Your task to perform on an android device: turn on notifications settings in the gmail app Image 0: 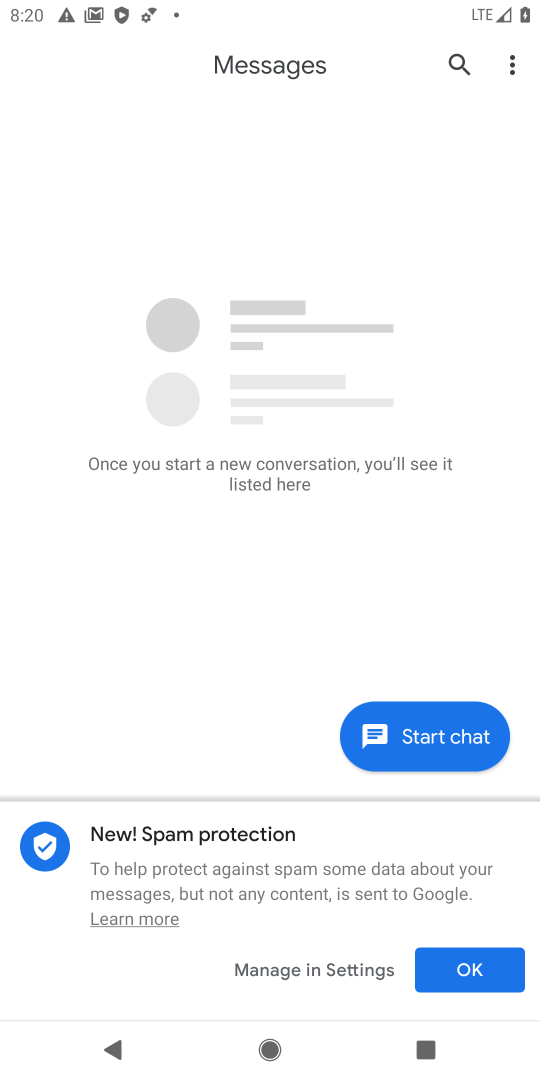
Step 0: press home button
Your task to perform on an android device: turn on notifications settings in the gmail app Image 1: 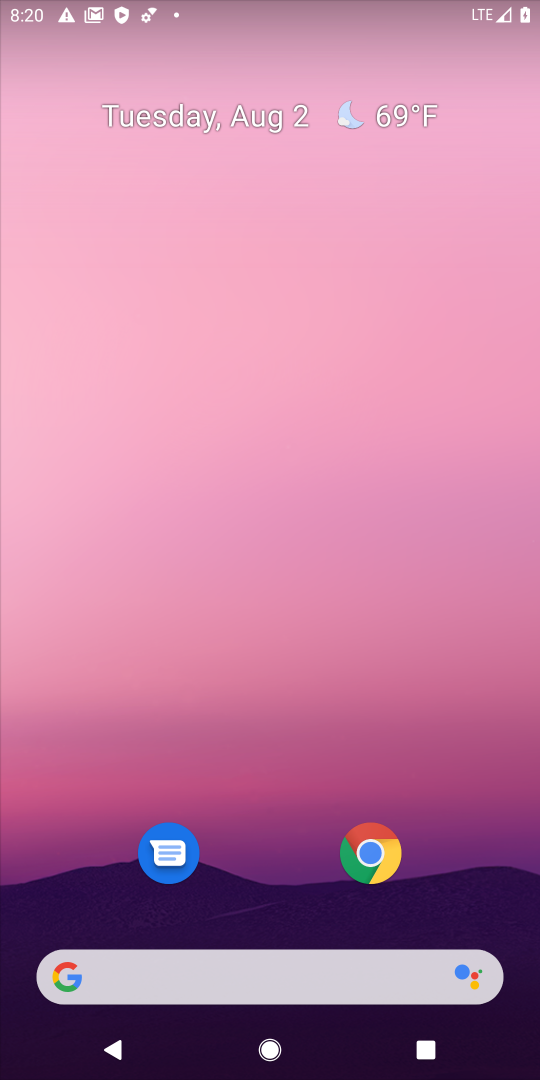
Step 1: drag from (285, 899) to (244, 74)
Your task to perform on an android device: turn on notifications settings in the gmail app Image 2: 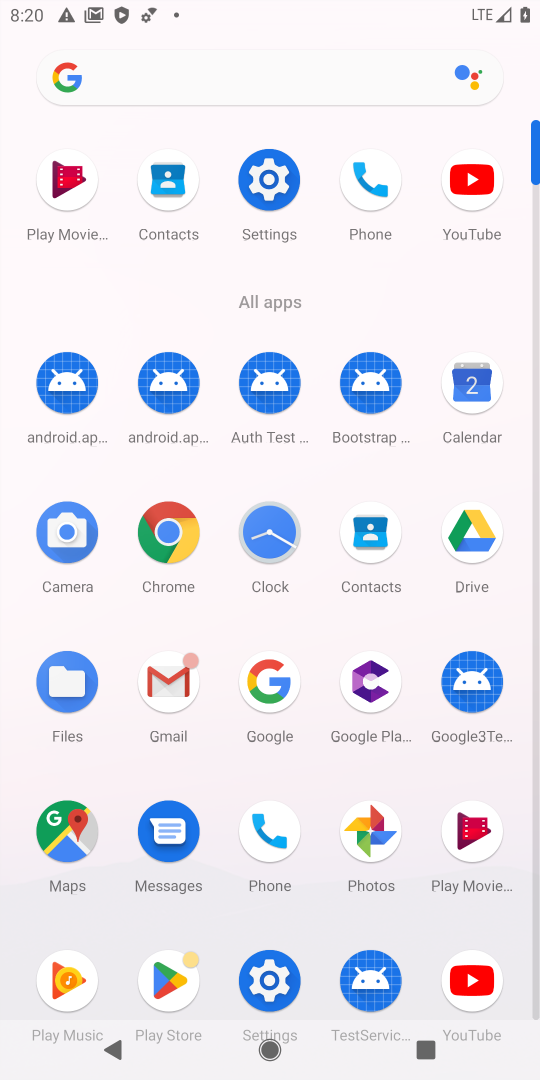
Step 2: click (178, 678)
Your task to perform on an android device: turn on notifications settings in the gmail app Image 3: 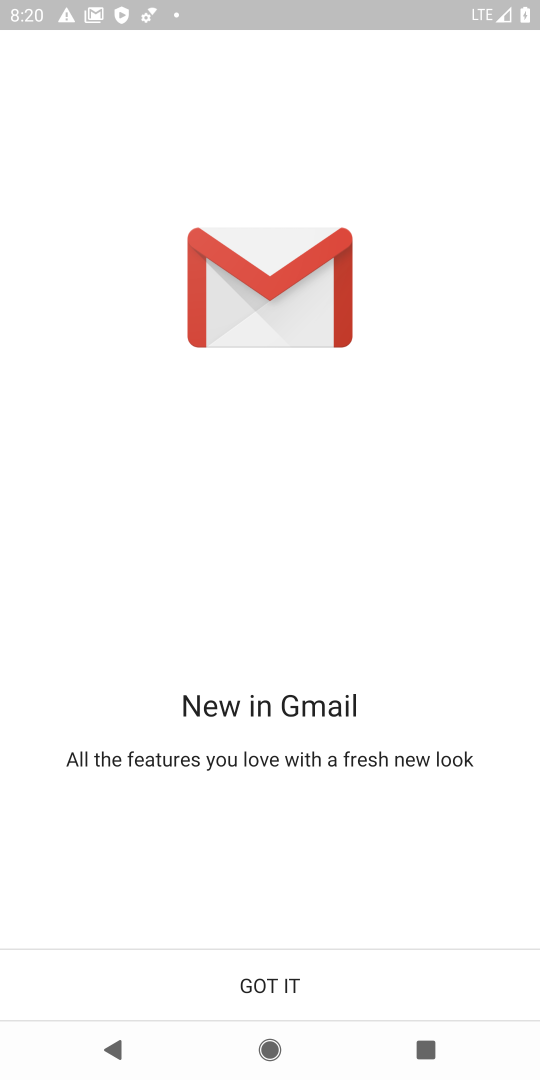
Step 3: click (248, 970)
Your task to perform on an android device: turn on notifications settings in the gmail app Image 4: 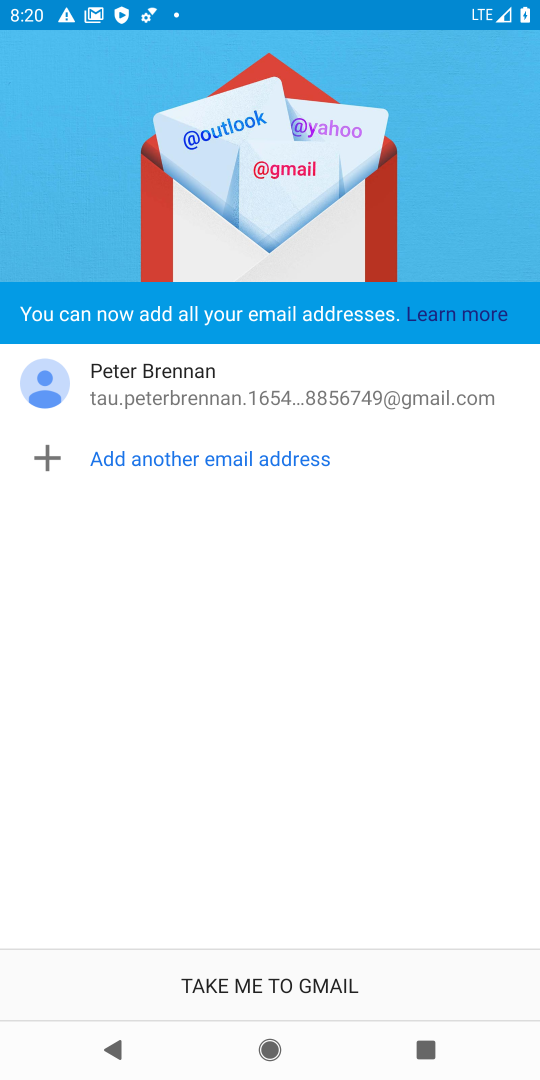
Step 4: click (248, 970)
Your task to perform on an android device: turn on notifications settings in the gmail app Image 5: 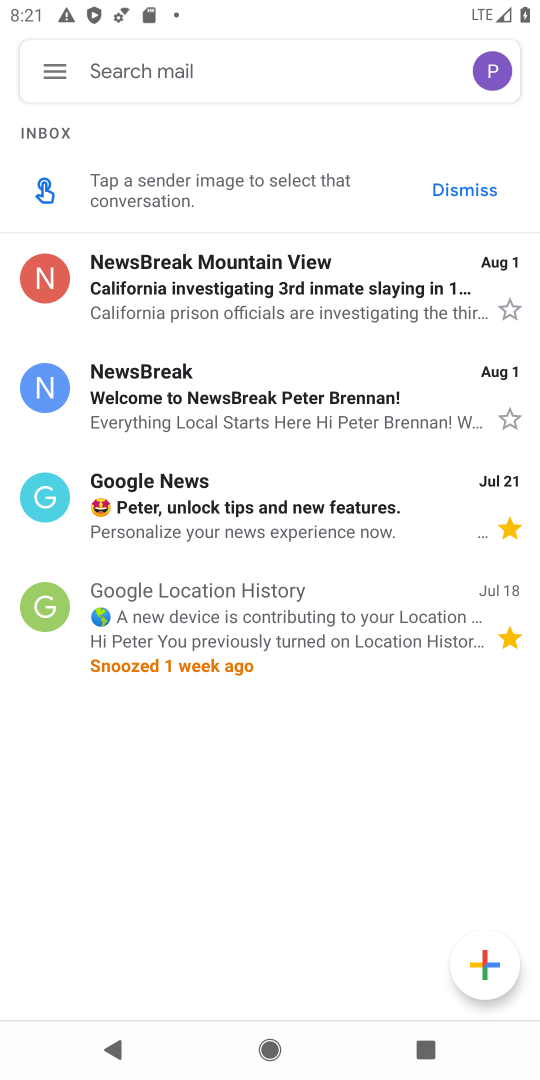
Step 5: click (53, 76)
Your task to perform on an android device: turn on notifications settings in the gmail app Image 6: 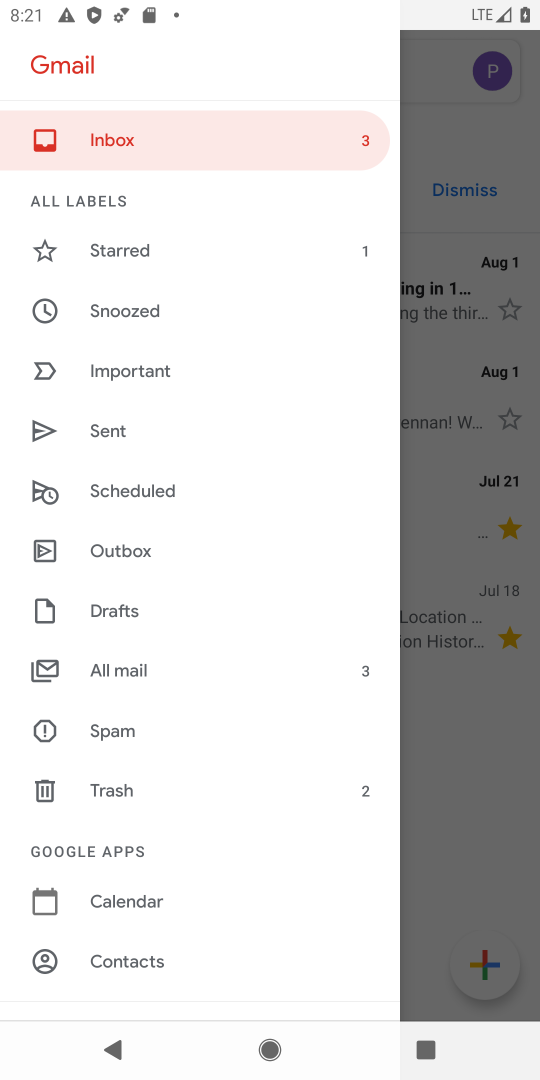
Step 6: drag from (151, 903) to (150, 379)
Your task to perform on an android device: turn on notifications settings in the gmail app Image 7: 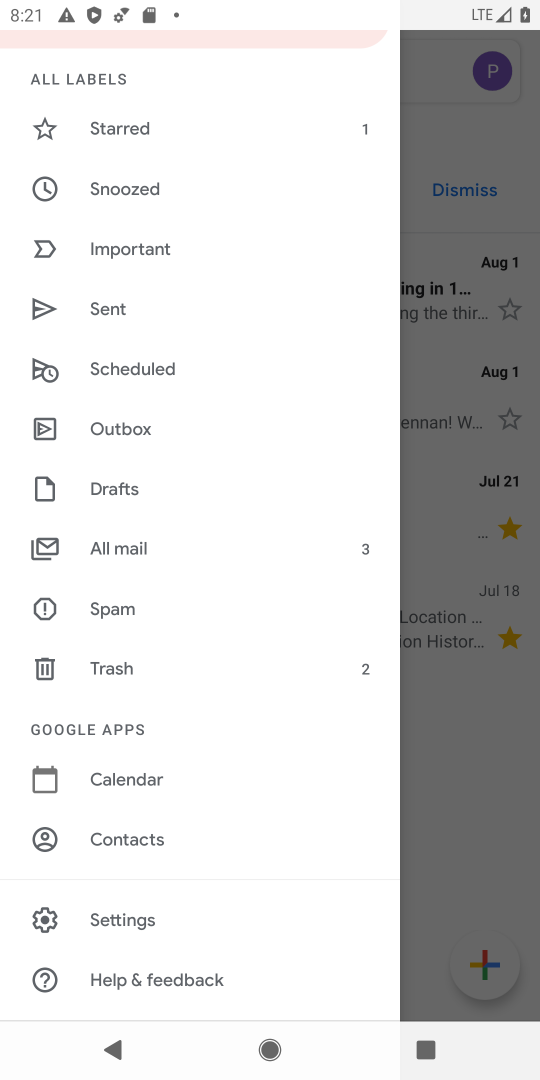
Step 7: click (131, 918)
Your task to perform on an android device: turn on notifications settings in the gmail app Image 8: 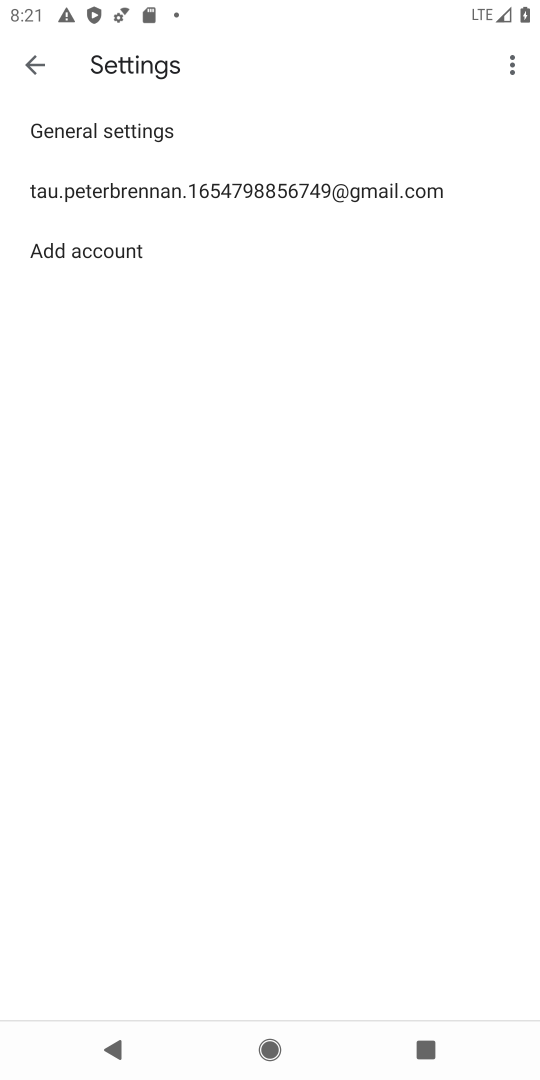
Step 8: click (144, 115)
Your task to perform on an android device: turn on notifications settings in the gmail app Image 9: 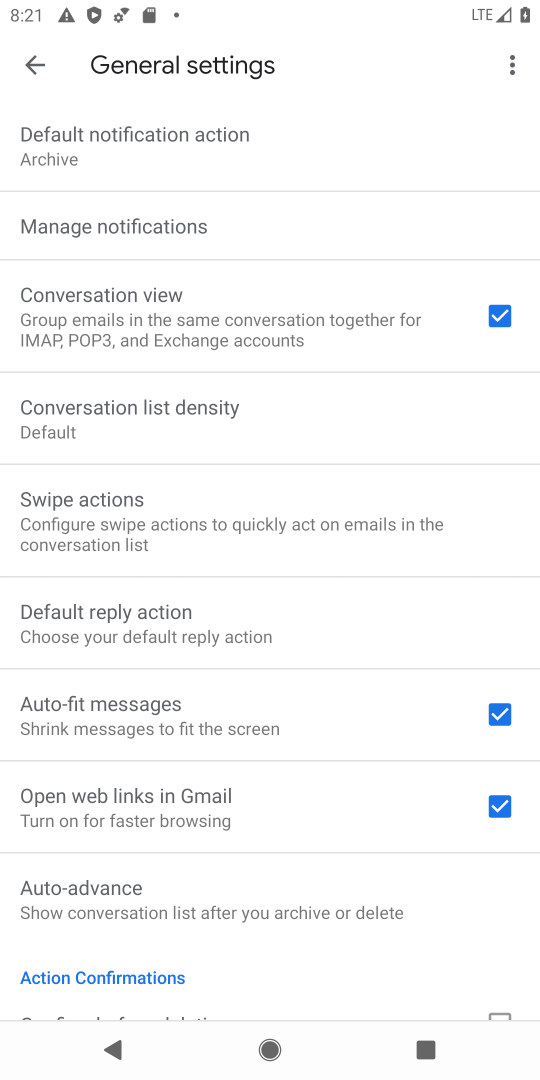
Step 9: click (123, 224)
Your task to perform on an android device: turn on notifications settings in the gmail app Image 10: 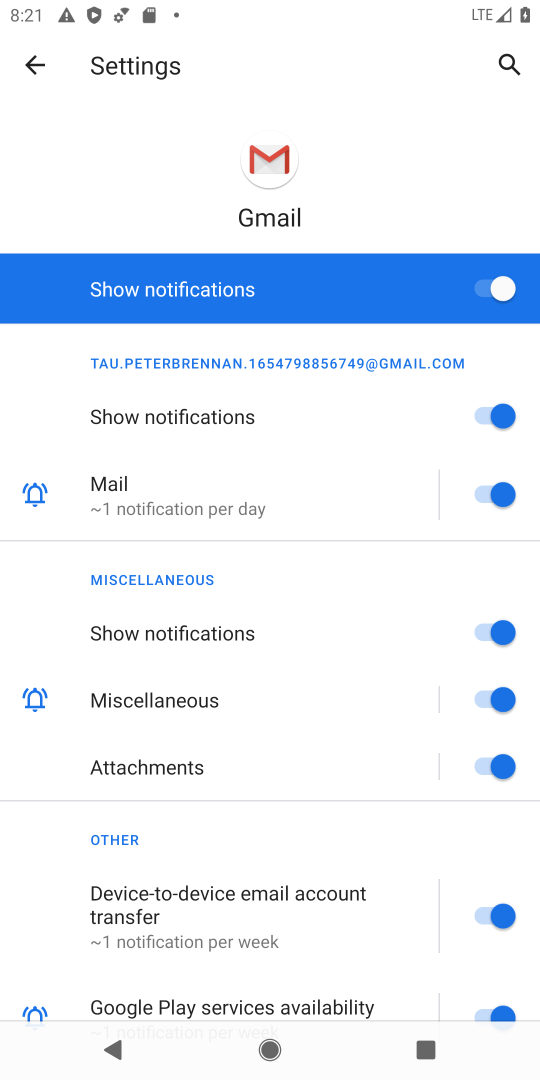
Step 10: task complete